Your task to perform on an android device: Set the phone to "Do not disturb". Image 0: 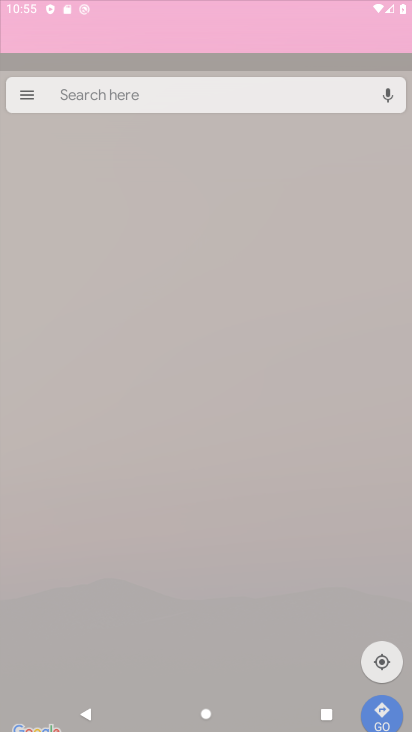
Step 0: click (300, 108)
Your task to perform on an android device: Set the phone to "Do not disturb". Image 1: 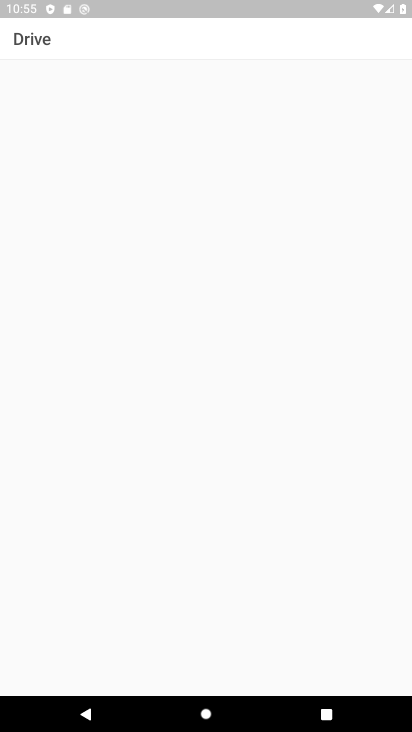
Step 1: press home button
Your task to perform on an android device: Set the phone to "Do not disturb". Image 2: 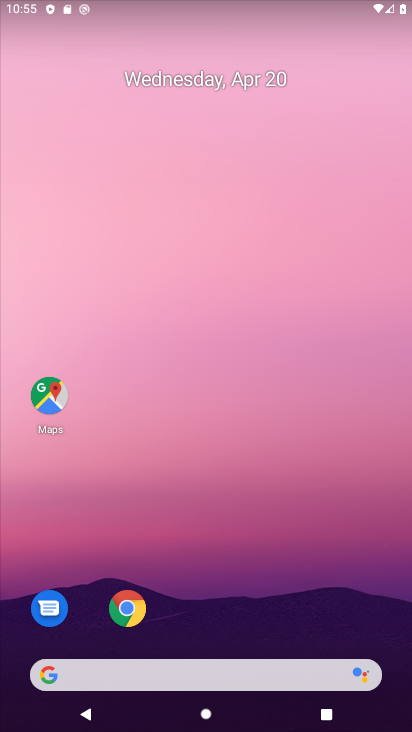
Step 2: drag from (229, 508) to (242, 165)
Your task to perform on an android device: Set the phone to "Do not disturb". Image 3: 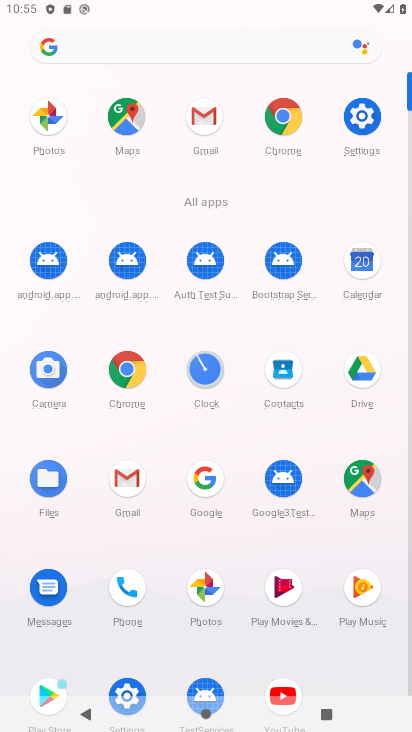
Step 3: click (355, 134)
Your task to perform on an android device: Set the phone to "Do not disturb". Image 4: 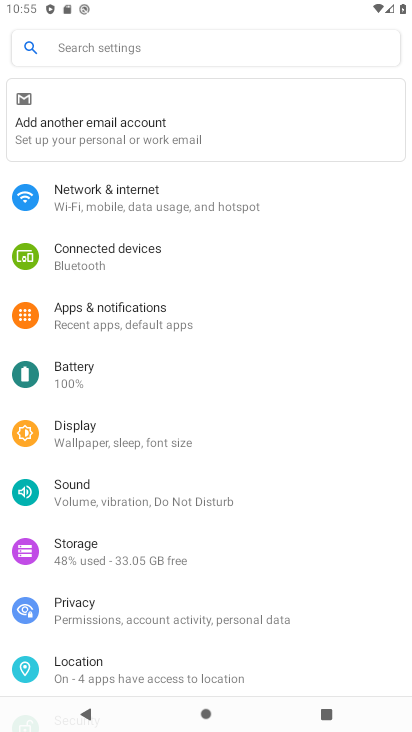
Step 4: drag from (154, 637) to (166, 317)
Your task to perform on an android device: Set the phone to "Do not disturb". Image 5: 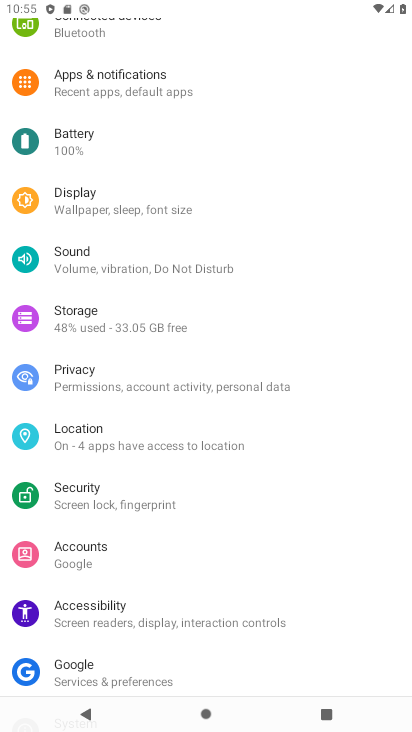
Step 5: click (153, 262)
Your task to perform on an android device: Set the phone to "Do not disturb". Image 6: 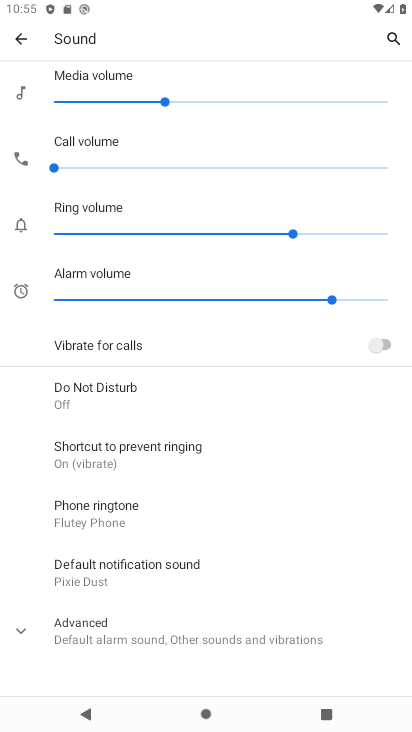
Step 6: click (139, 403)
Your task to perform on an android device: Set the phone to "Do not disturb". Image 7: 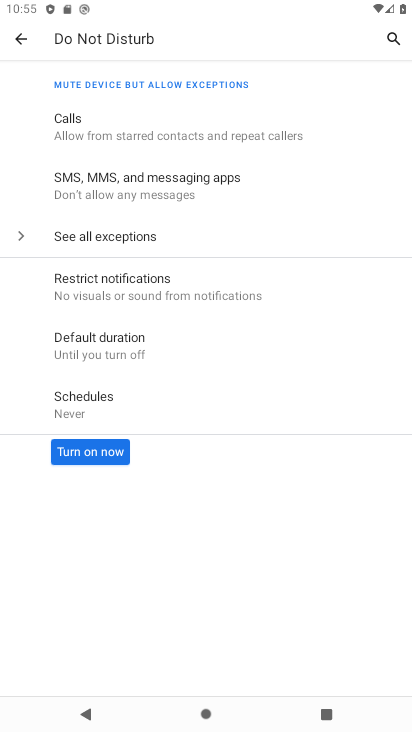
Step 7: click (102, 455)
Your task to perform on an android device: Set the phone to "Do not disturb". Image 8: 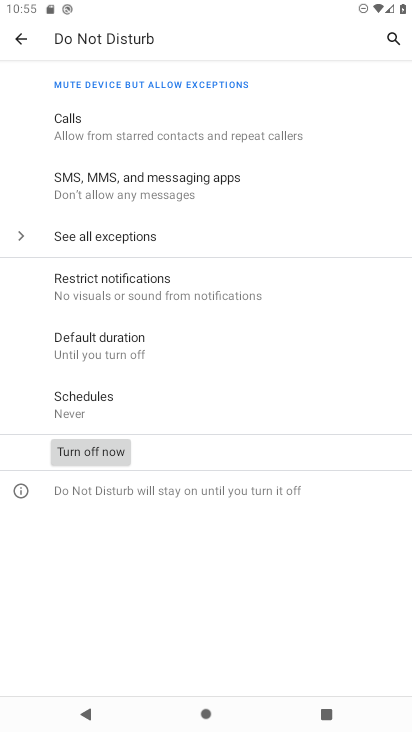
Step 8: task complete